Your task to perform on an android device: Do I have any events tomorrow? Image 0: 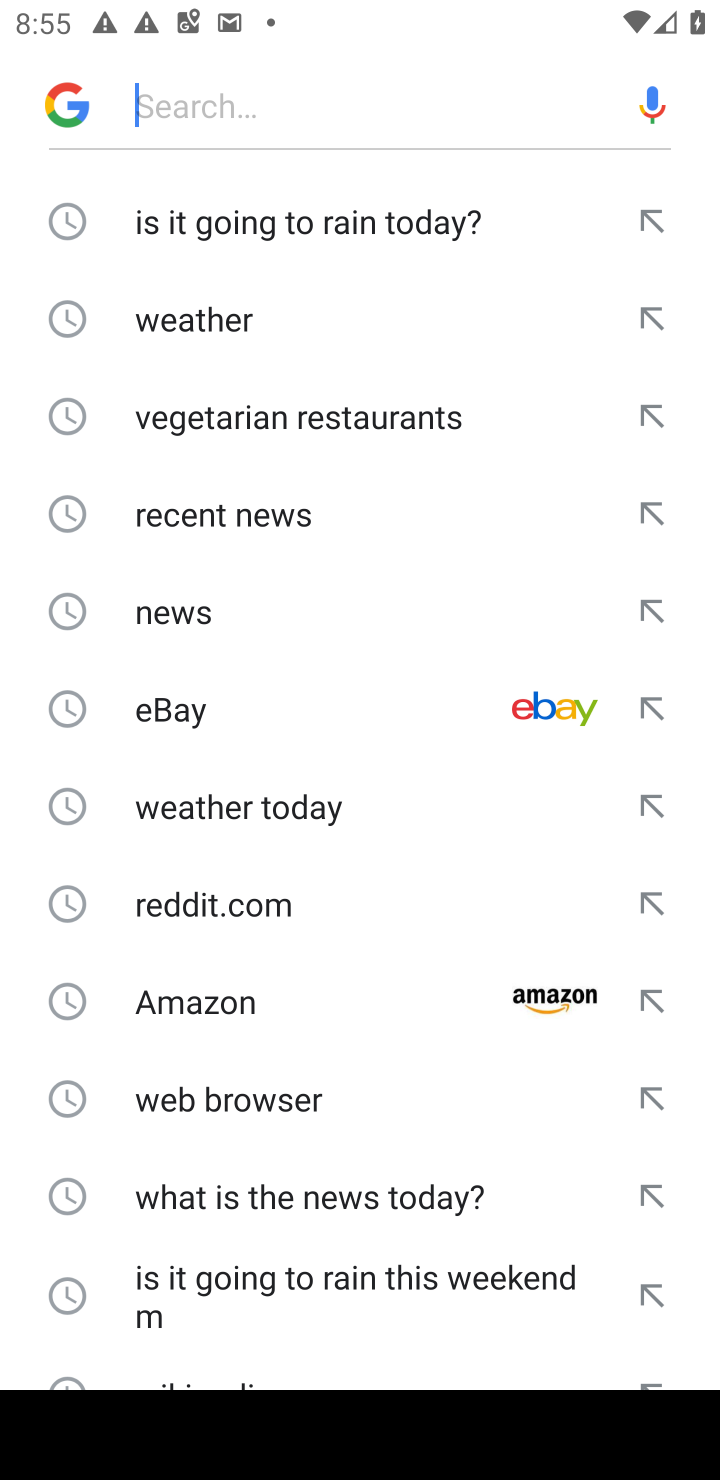
Step 0: press home button
Your task to perform on an android device: Do I have any events tomorrow? Image 1: 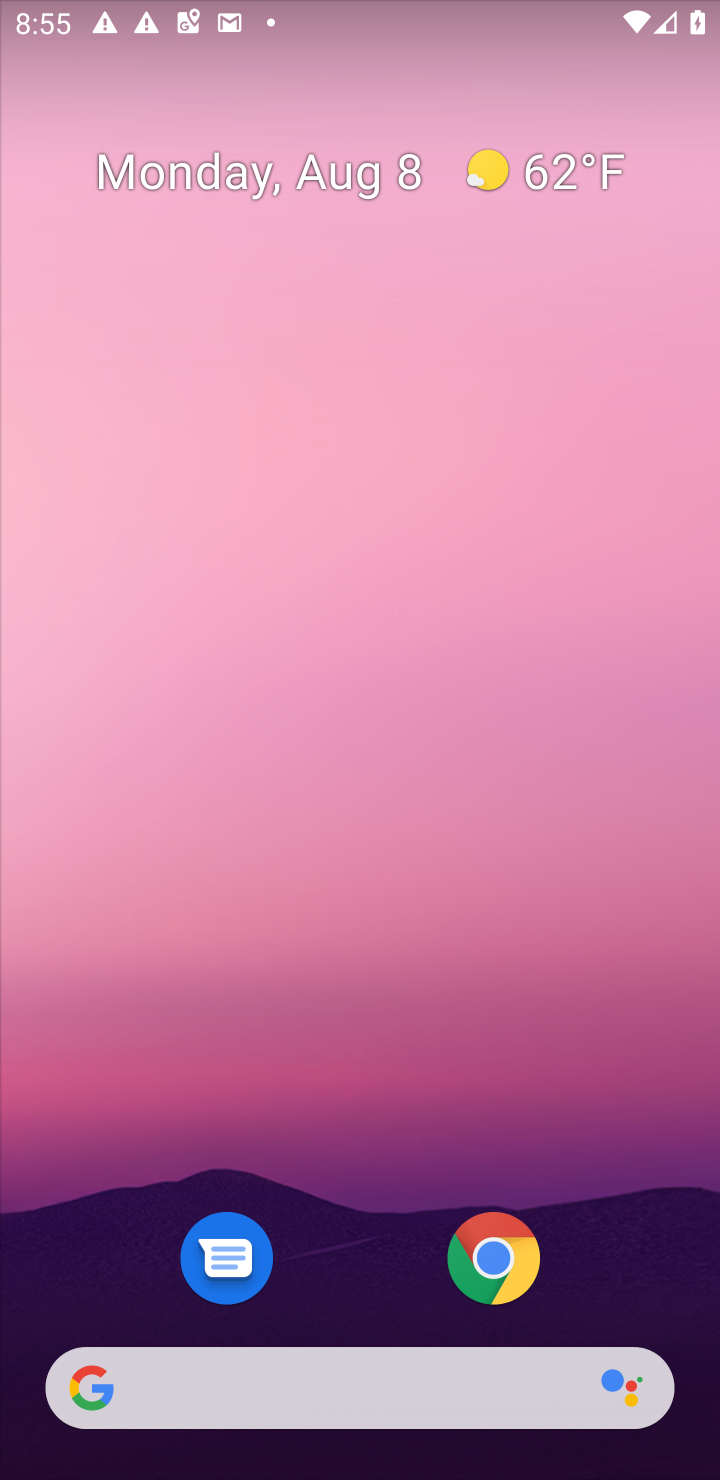
Step 1: drag from (374, 1144) to (453, 93)
Your task to perform on an android device: Do I have any events tomorrow? Image 2: 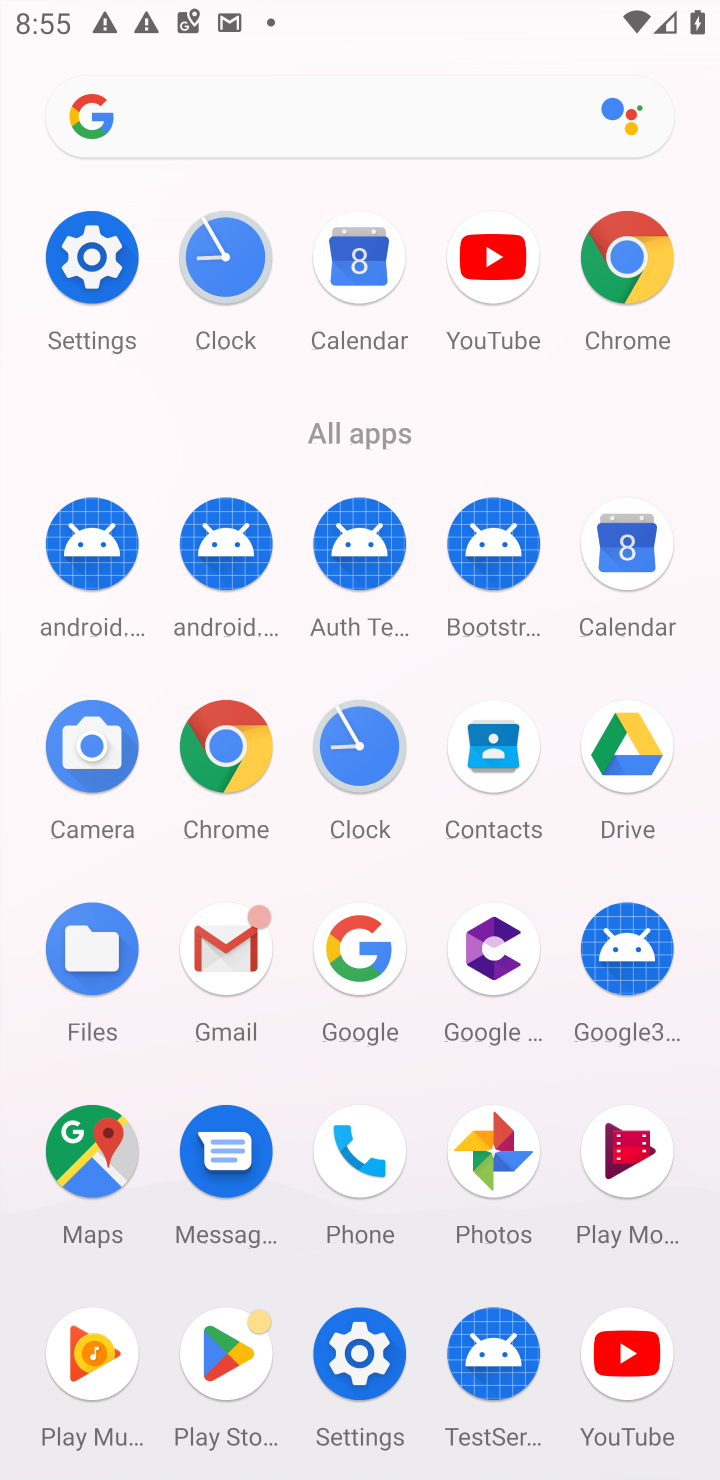
Step 2: click (641, 535)
Your task to perform on an android device: Do I have any events tomorrow? Image 3: 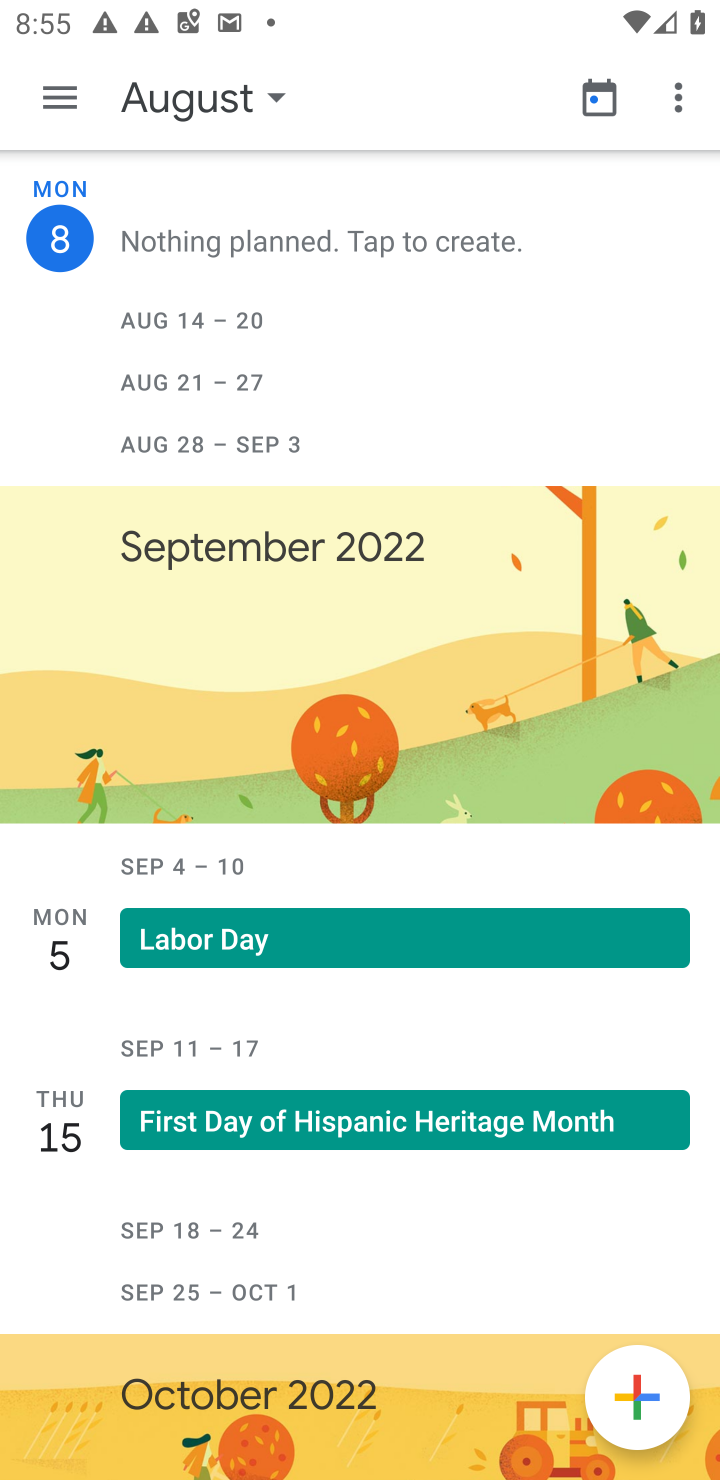
Step 3: task complete